Your task to perform on an android device: Go to Amazon Image 0: 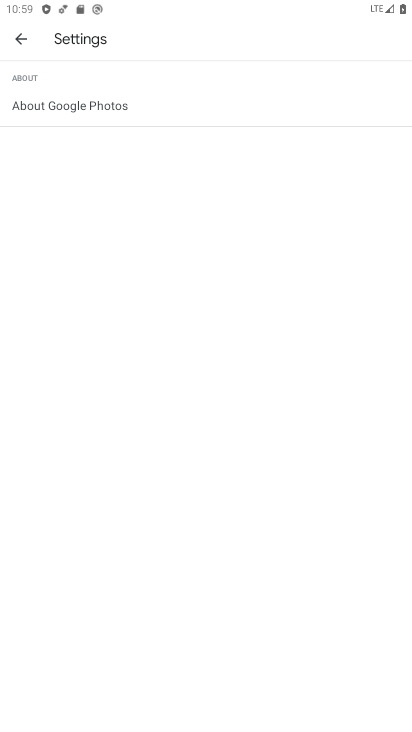
Step 0: press home button
Your task to perform on an android device: Go to Amazon Image 1: 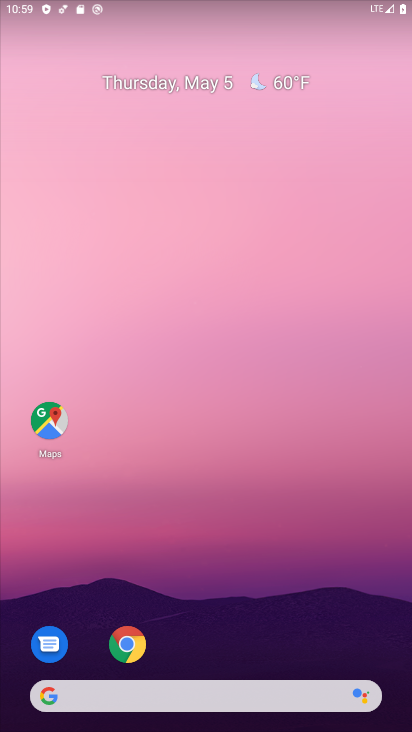
Step 1: drag from (334, 609) to (290, 165)
Your task to perform on an android device: Go to Amazon Image 2: 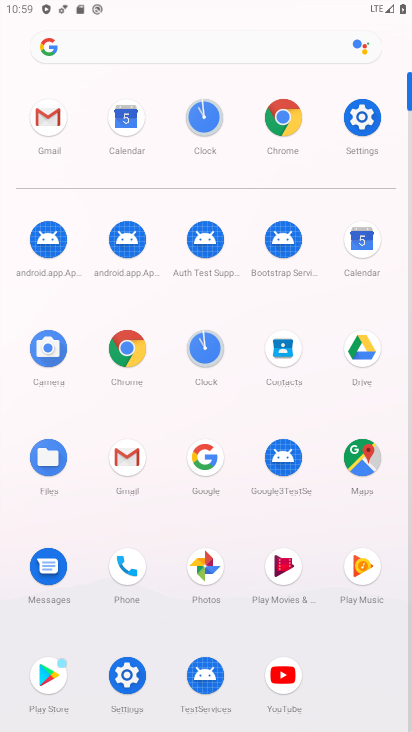
Step 2: click (129, 343)
Your task to perform on an android device: Go to Amazon Image 3: 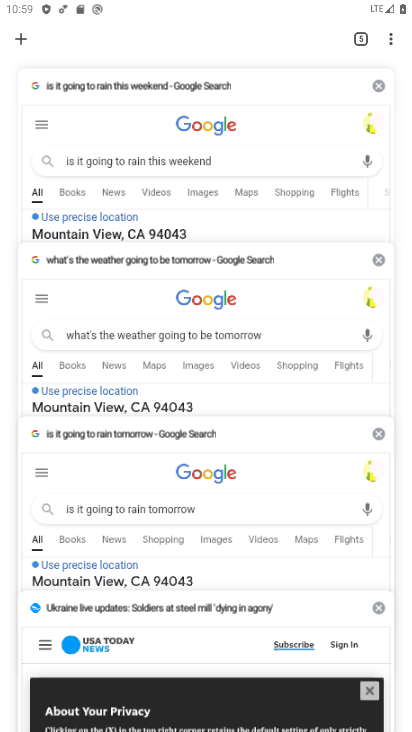
Step 3: click (20, 37)
Your task to perform on an android device: Go to Amazon Image 4: 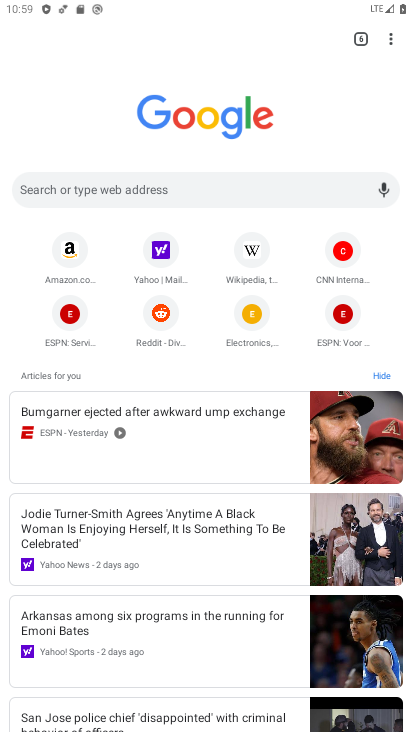
Step 4: click (71, 255)
Your task to perform on an android device: Go to Amazon Image 5: 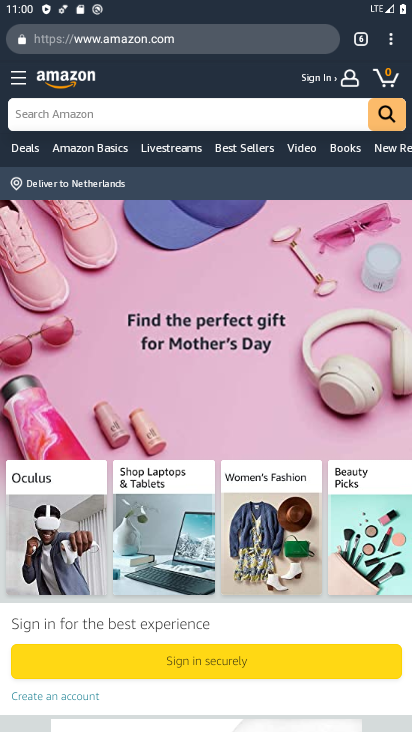
Step 5: task complete